Your task to perform on an android device: Go to Maps Image 0: 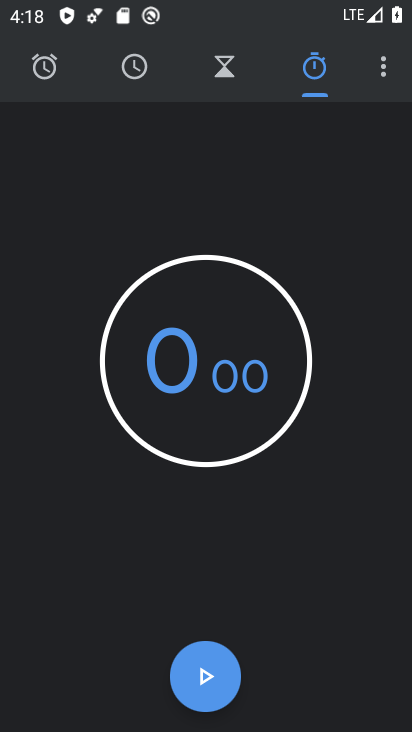
Step 0: press home button
Your task to perform on an android device: Go to Maps Image 1: 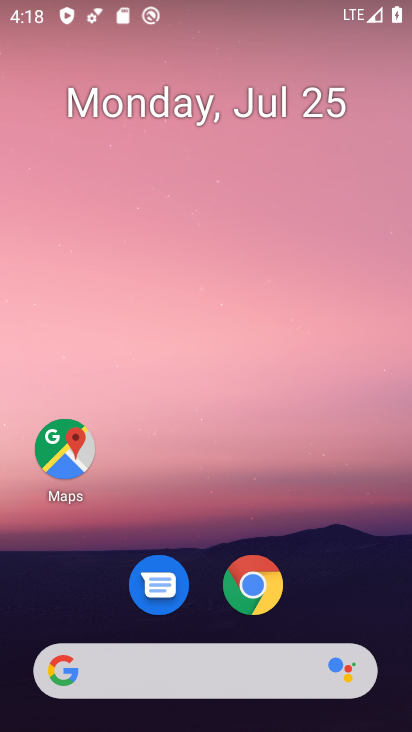
Step 1: drag from (303, 614) to (301, 66)
Your task to perform on an android device: Go to Maps Image 2: 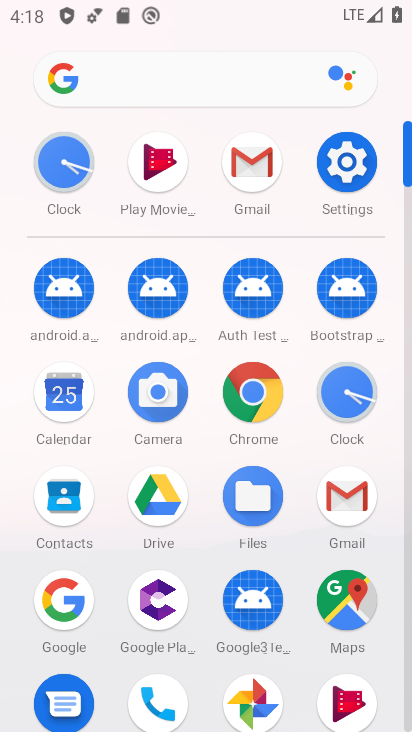
Step 2: click (341, 588)
Your task to perform on an android device: Go to Maps Image 3: 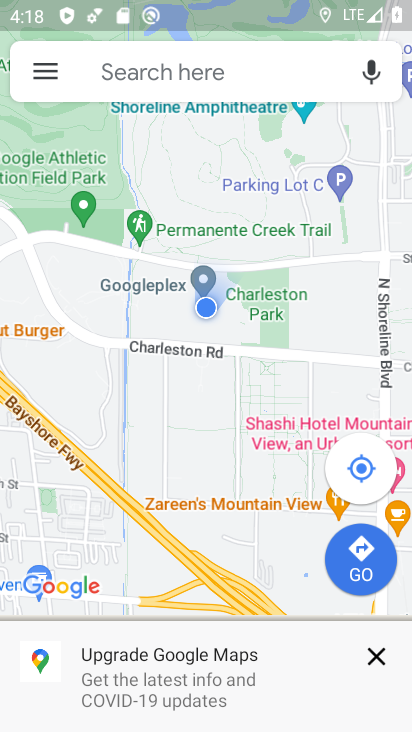
Step 3: task complete